Your task to perform on an android device: stop showing notifications on the lock screen Image 0: 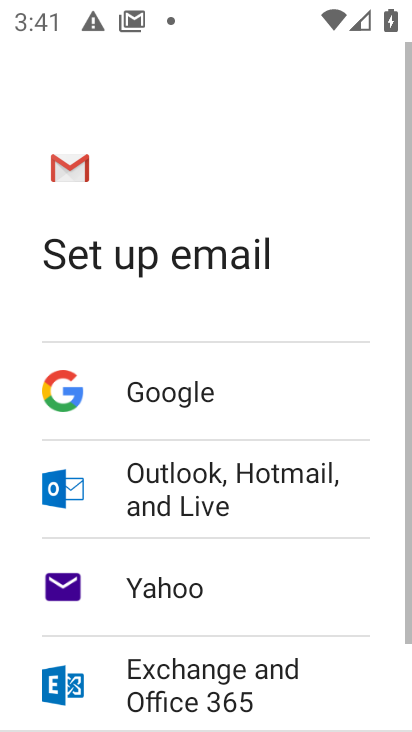
Step 0: press home button
Your task to perform on an android device: stop showing notifications on the lock screen Image 1: 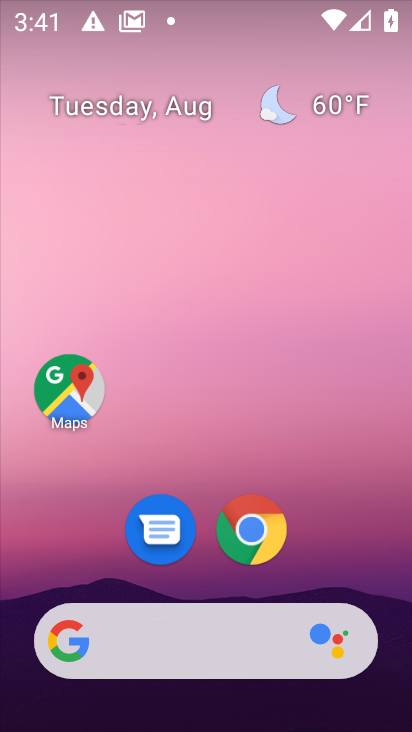
Step 1: drag from (360, 537) to (302, 77)
Your task to perform on an android device: stop showing notifications on the lock screen Image 2: 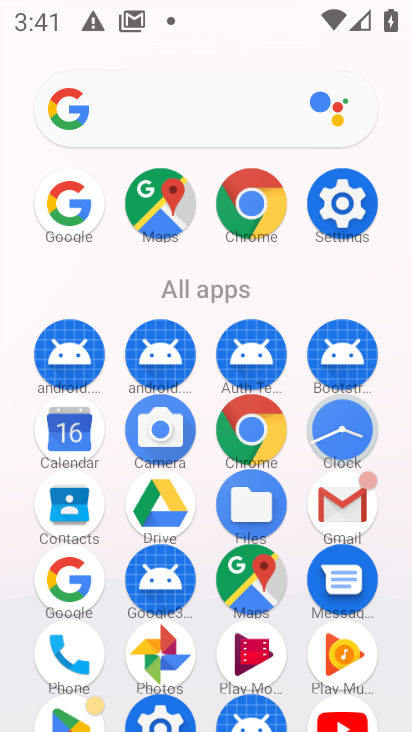
Step 2: click (359, 182)
Your task to perform on an android device: stop showing notifications on the lock screen Image 3: 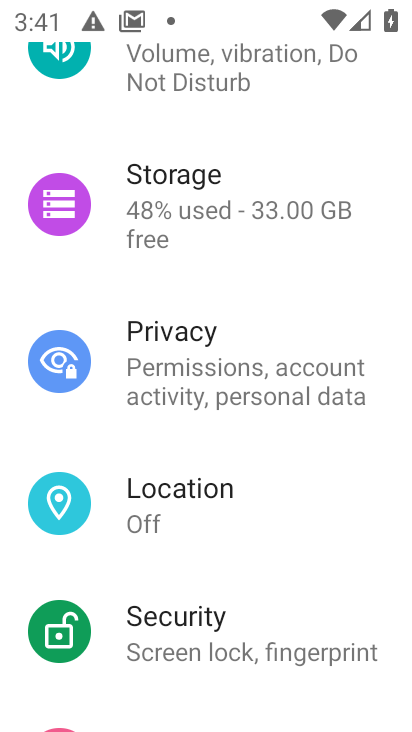
Step 3: drag from (254, 383) to (186, 706)
Your task to perform on an android device: stop showing notifications on the lock screen Image 4: 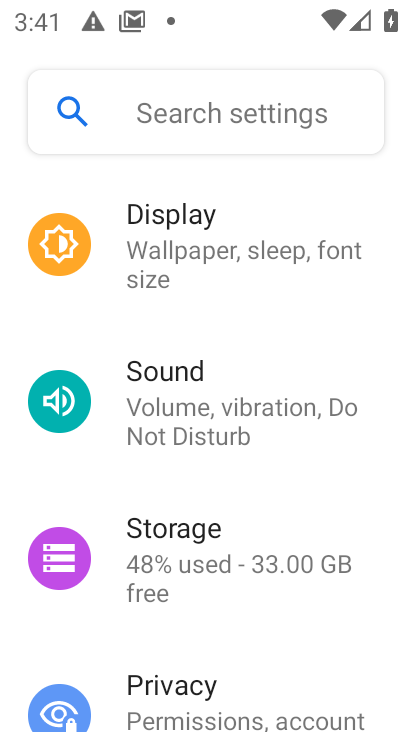
Step 4: drag from (195, 342) to (227, 672)
Your task to perform on an android device: stop showing notifications on the lock screen Image 5: 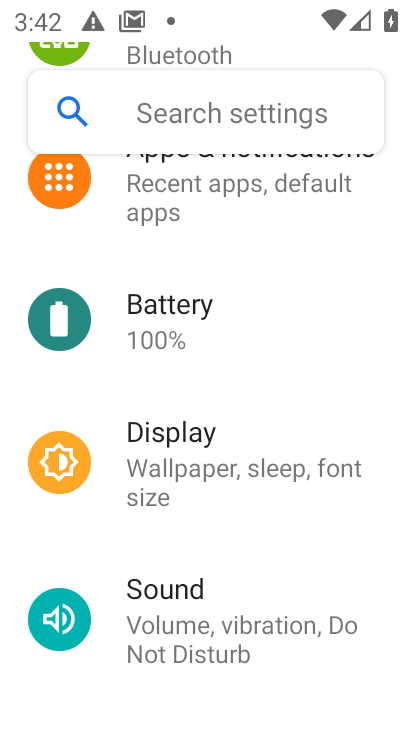
Step 5: click (190, 205)
Your task to perform on an android device: stop showing notifications on the lock screen Image 6: 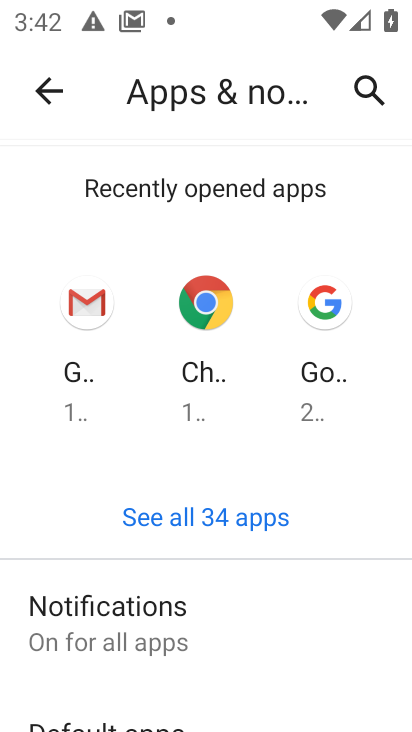
Step 6: click (180, 603)
Your task to perform on an android device: stop showing notifications on the lock screen Image 7: 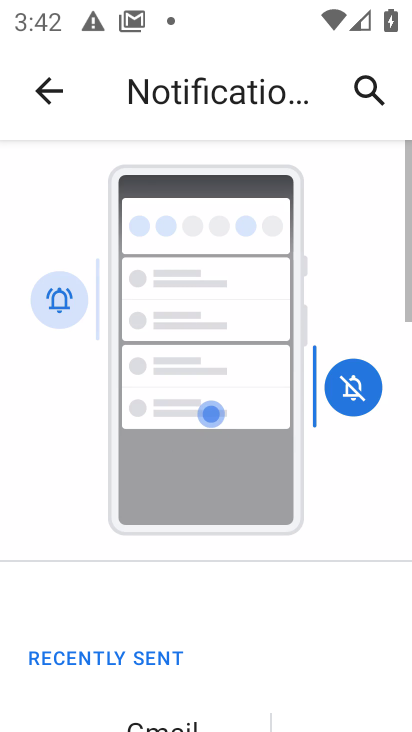
Step 7: drag from (232, 586) to (224, 121)
Your task to perform on an android device: stop showing notifications on the lock screen Image 8: 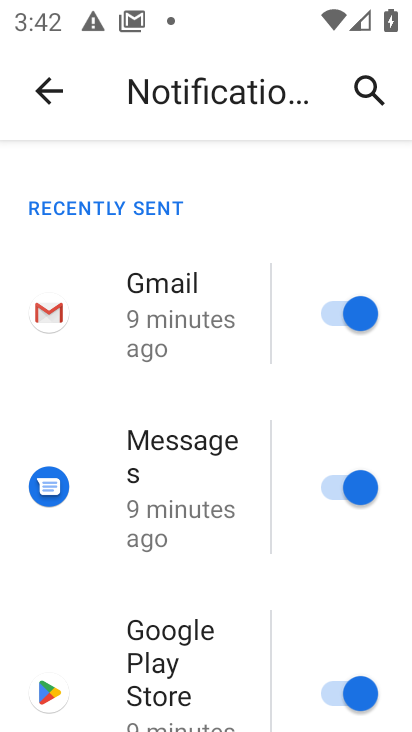
Step 8: drag from (292, 580) to (277, 122)
Your task to perform on an android device: stop showing notifications on the lock screen Image 9: 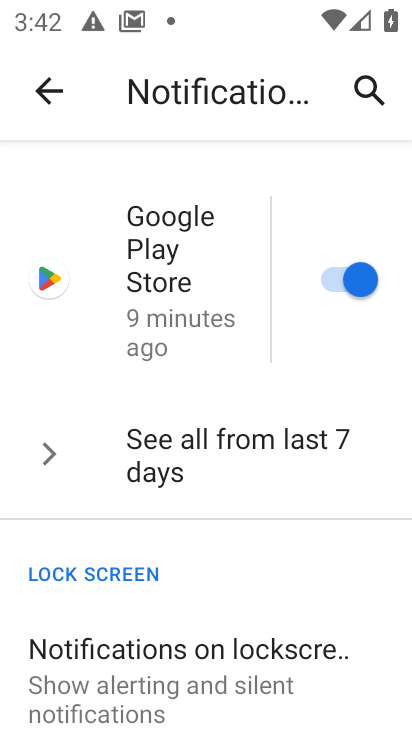
Step 9: click (298, 691)
Your task to perform on an android device: stop showing notifications on the lock screen Image 10: 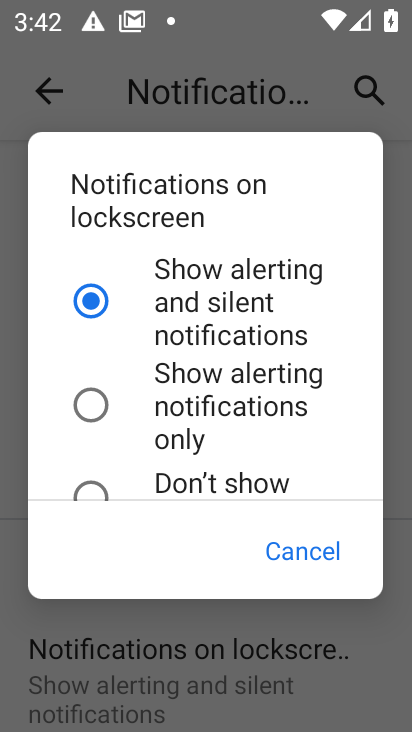
Step 10: click (91, 486)
Your task to perform on an android device: stop showing notifications on the lock screen Image 11: 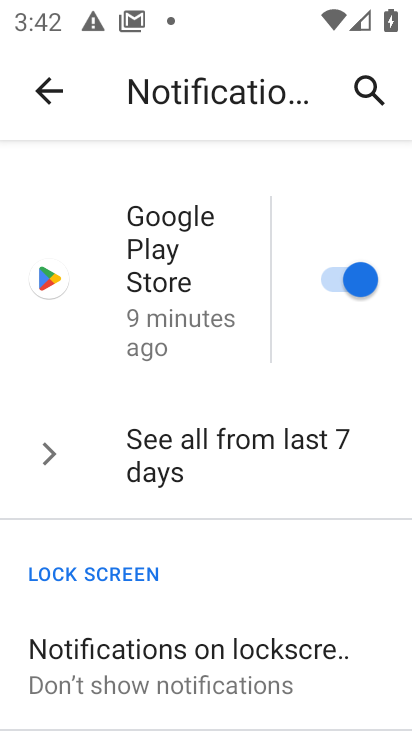
Step 11: task complete